Your task to perform on an android device: Search for Italian restaurants on Maps Image 0: 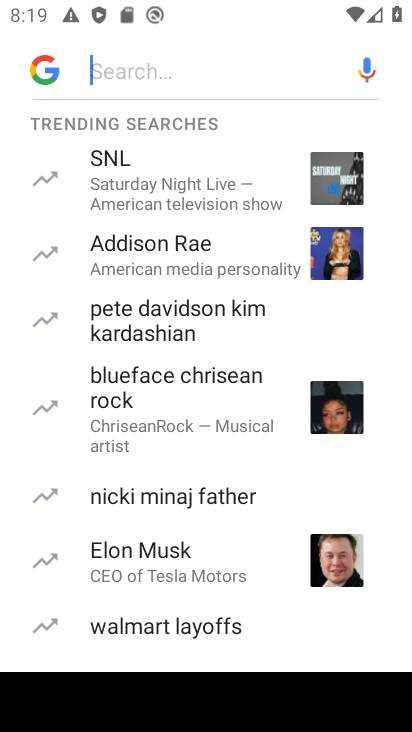
Step 0: press back button
Your task to perform on an android device: Search for Italian restaurants on Maps Image 1: 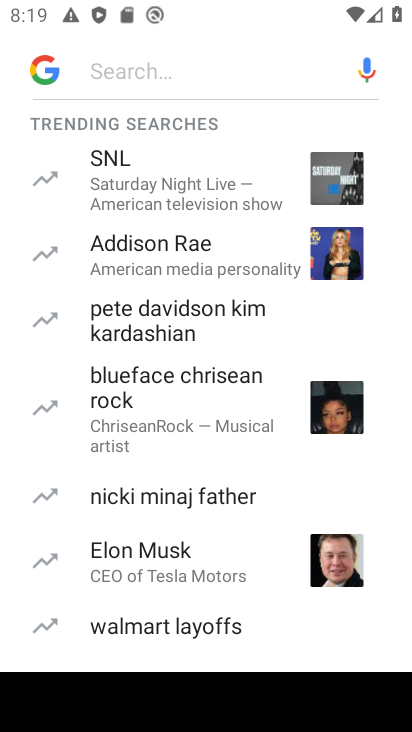
Step 1: press back button
Your task to perform on an android device: Search for Italian restaurants on Maps Image 2: 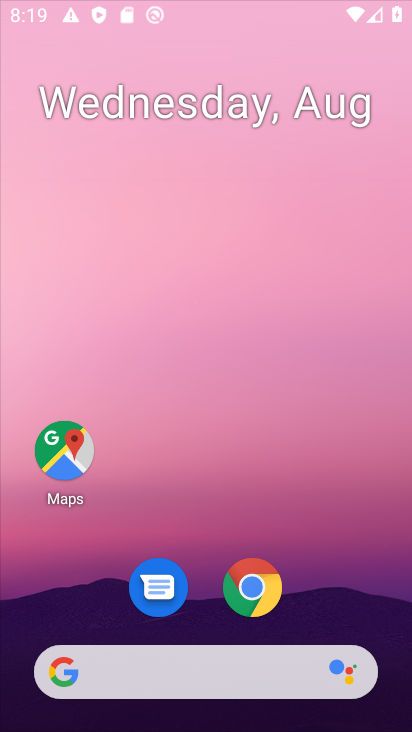
Step 2: press back button
Your task to perform on an android device: Search for Italian restaurants on Maps Image 3: 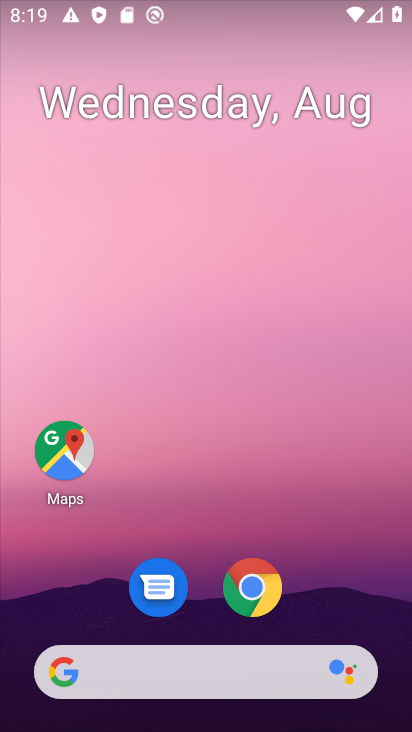
Step 3: drag from (207, 623) to (148, 203)
Your task to perform on an android device: Search for Italian restaurants on Maps Image 4: 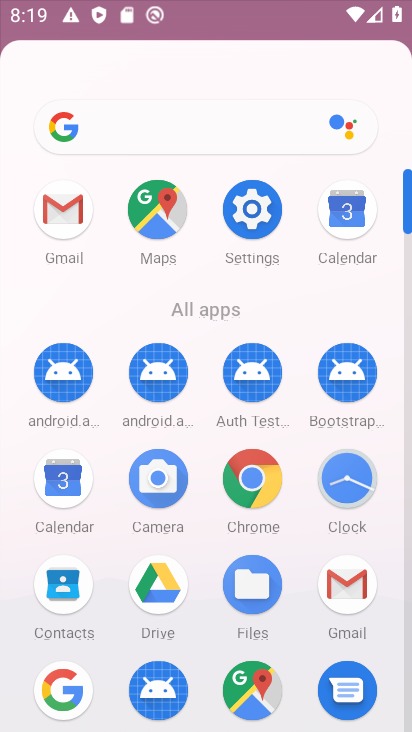
Step 4: drag from (209, 530) to (139, 57)
Your task to perform on an android device: Search for Italian restaurants on Maps Image 5: 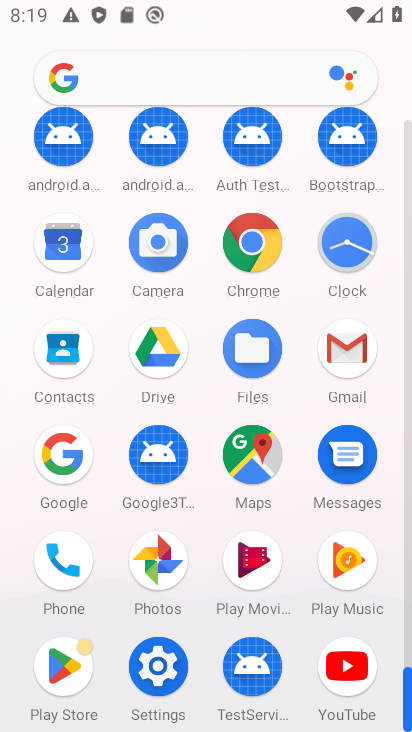
Step 5: click (259, 450)
Your task to perform on an android device: Search for Italian restaurants on Maps Image 6: 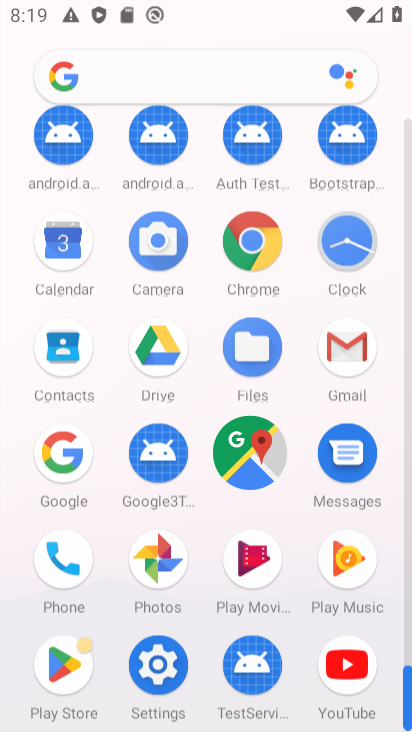
Step 6: click (259, 450)
Your task to perform on an android device: Search for Italian restaurants on Maps Image 7: 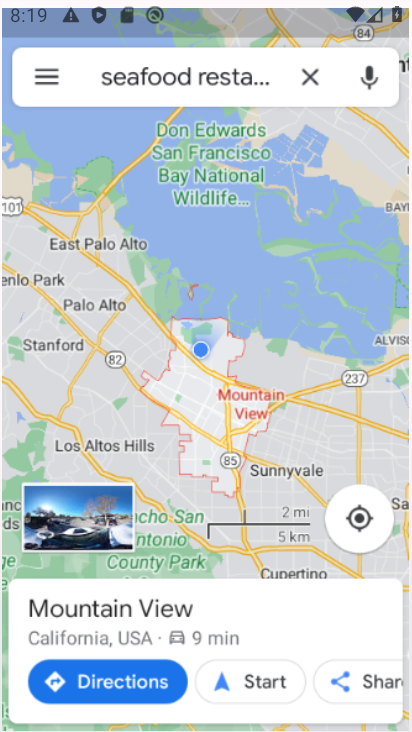
Step 7: click (260, 450)
Your task to perform on an android device: Search for Italian restaurants on Maps Image 8: 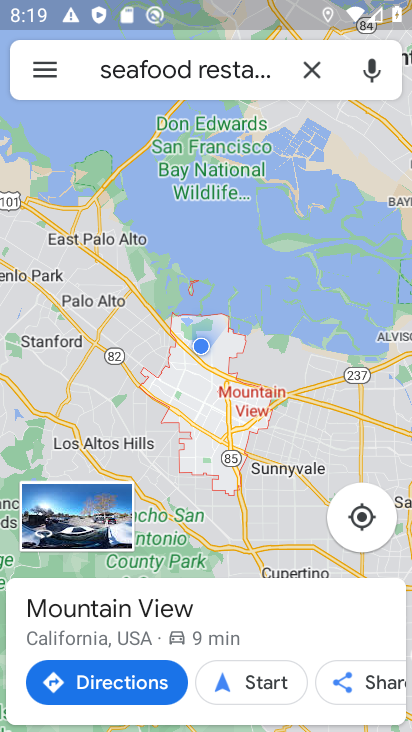
Step 8: click (317, 69)
Your task to perform on an android device: Search for Italian restaurants on Maps Image 9: 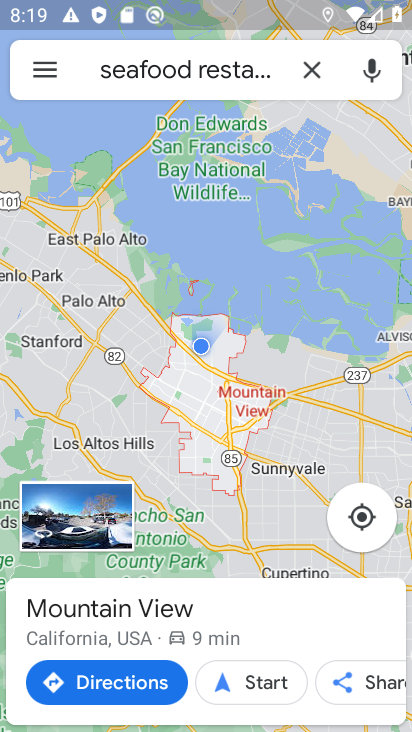
Step 9: click (317, 69)
Your task to perform on an android device: Search for Italian restaurants on Maps Image 10: 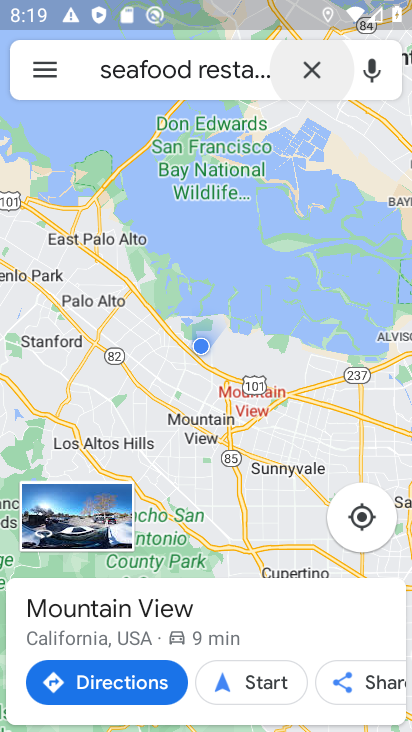
Step 10: click (318, 70)
Your task to perform on an android device: Search for Italian restaurants on Maps Image 11: 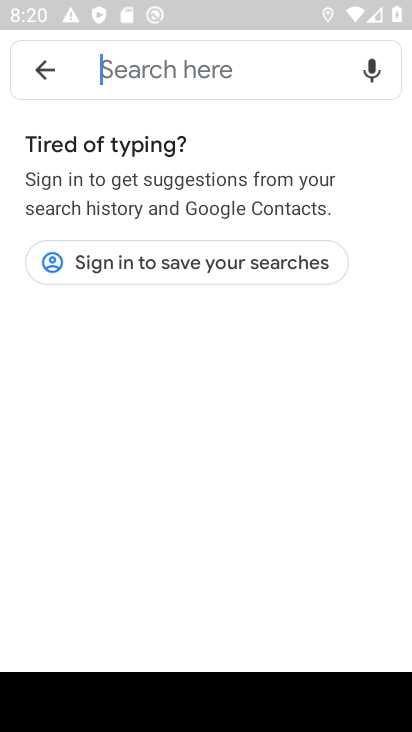
Step 11: type "italian restaurants"
Your task to perform on an android device: Search for Italian restaurants on Maps Image 12: 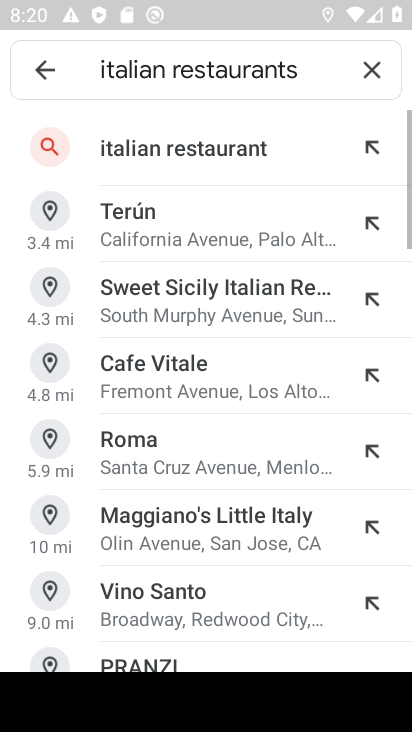
Step 12: click (210, 156)
Your task to perform on an android device: Search for Italian restaurants on Maps Image 13: 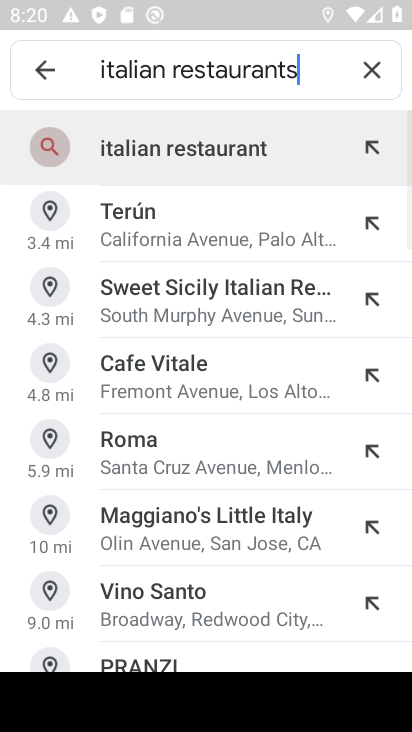
Step 13: click (208, 157)
Your task to perform on an android device: Search for Italian restaurants on Maps Image 14: 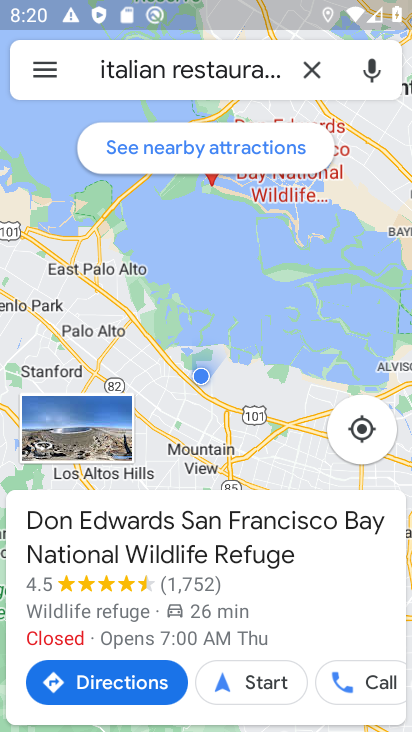
Step 14: task complete